Your task to perform on an android device: Open calendar and show me the second week of next month Image 0: 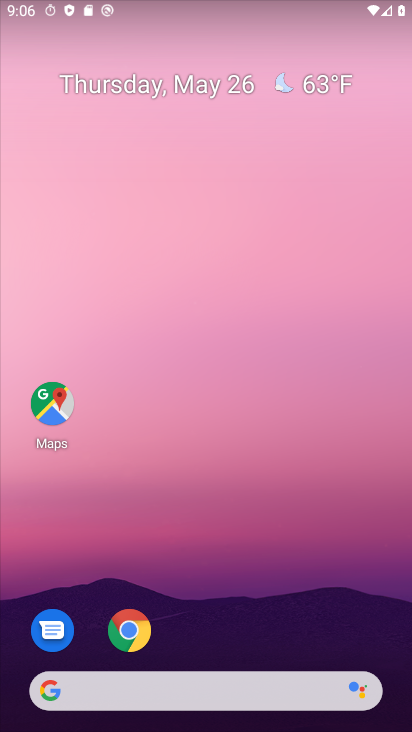
Step 0: drag from (129, 128) to (153, 50)
Your task to perform on an android device: Open calendar and show me the second week of next month Image 1: 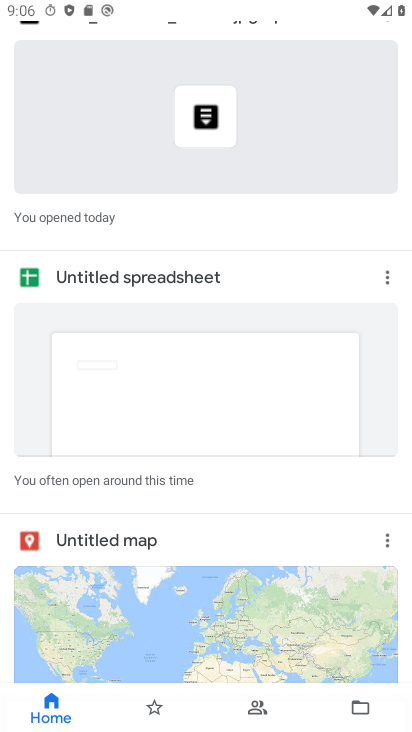
Step 1: drag from (223, 378) to (164, 173)
Your task to perform on an android device: Open calendar and show me the second week of next month Image 2: 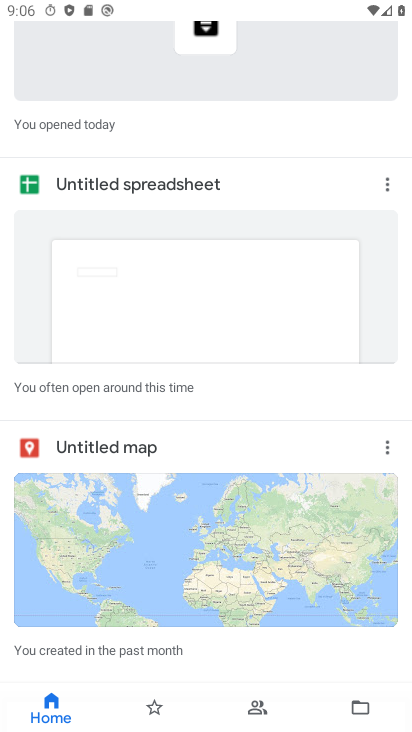
Step 2: press back button
Your task to perform on an android device: Open calendar and show me the second week of next month Image 3: 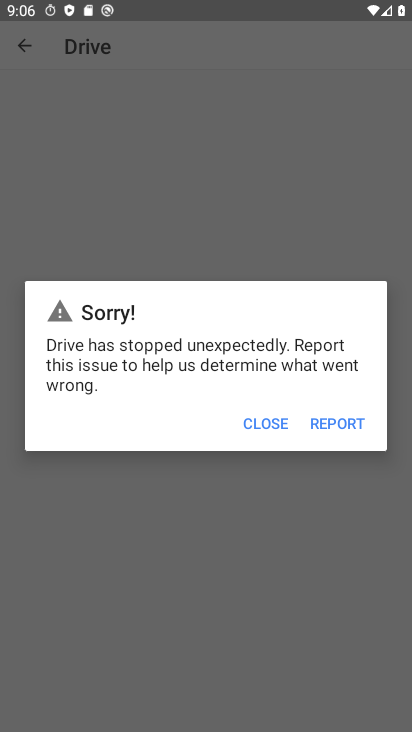
Step 3: click (267, 416)
Your task to perform on an android device: Open calendar and show me the second week of next month Image 4: 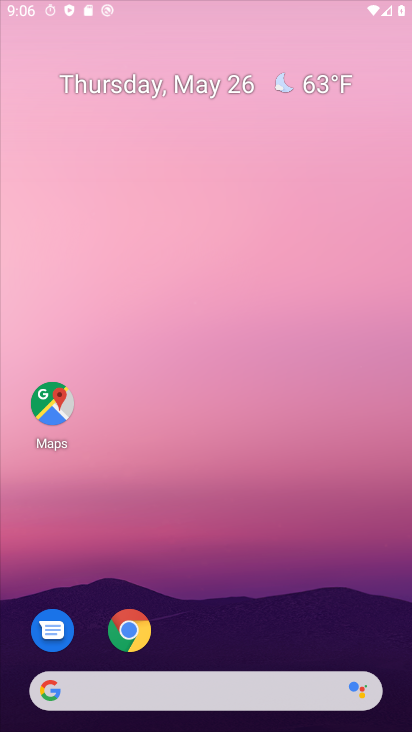
Step 4: click (251, 410)
Your task to perform on an android device: Open calendar and show me the second week of next month Image 5: 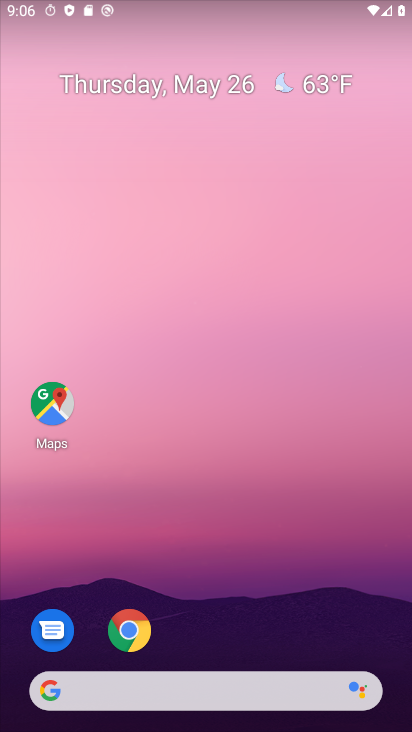
Step 5: drag from (279, 621) to (175, 112)
Your task to perform on an android device: Open calendar and show me the second week of next month Image 6: 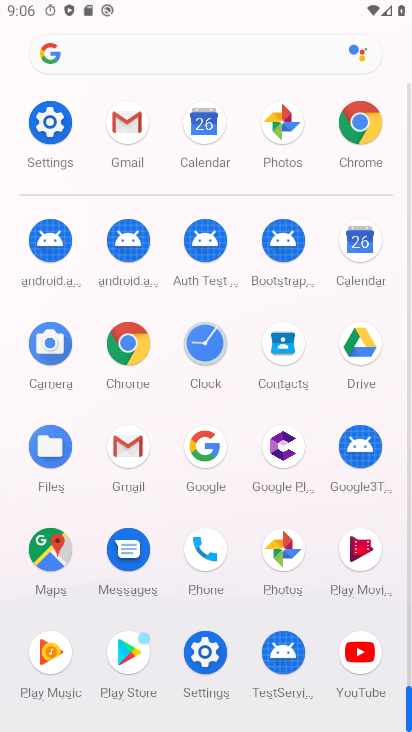
Step 6: click (363, 241)
Your task to perform on an android device: Open calendar and show me the second week of next month Image 7: 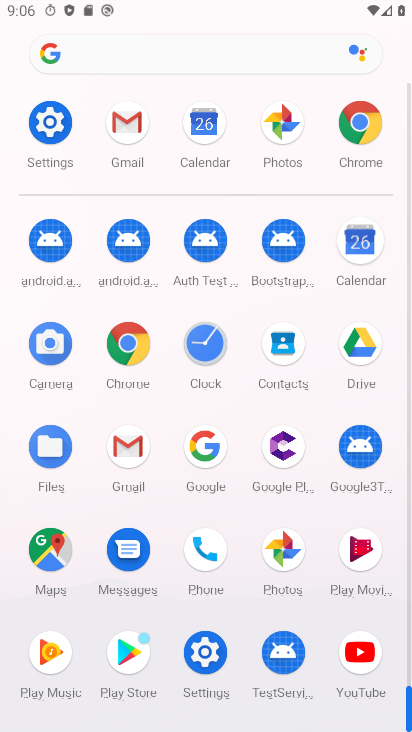
Step 7: click (363, 241)
Your task to perform on an android device: Open calendar and show me the second week of next month Image 8: 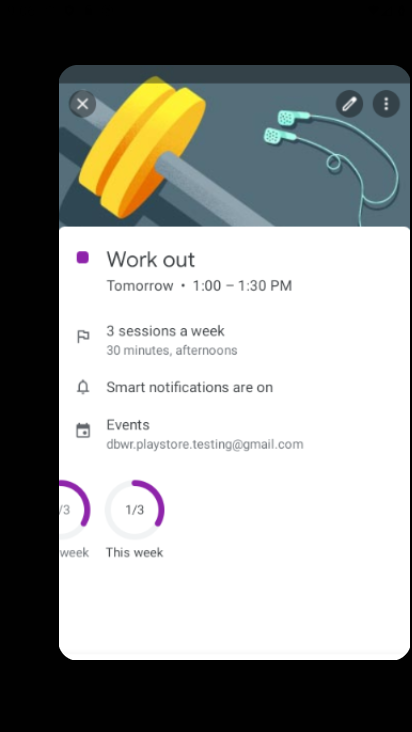
Step 8: click (363, 241)
Your task to perform on an android device: Open calendar and show me the second week of next month Image 9: 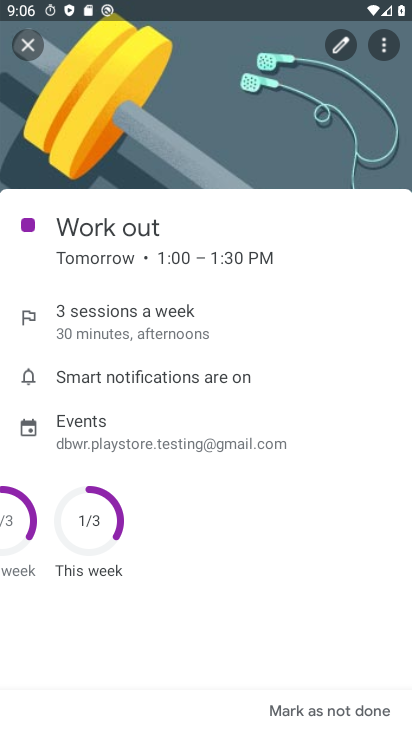
Step 9: click (26, 47)
Your task to perform on an android device: Open calendar and show me the second week of next month Image 10: 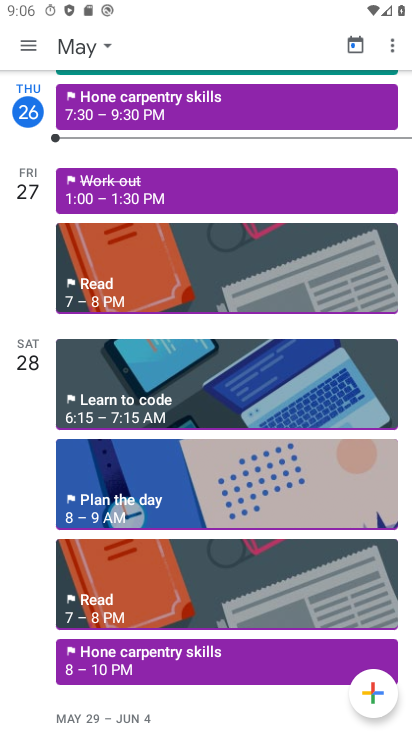
Step 10: click (106, 52)
Your task to perform on an android device: Open calendar and show me the second week of next month Image 11: 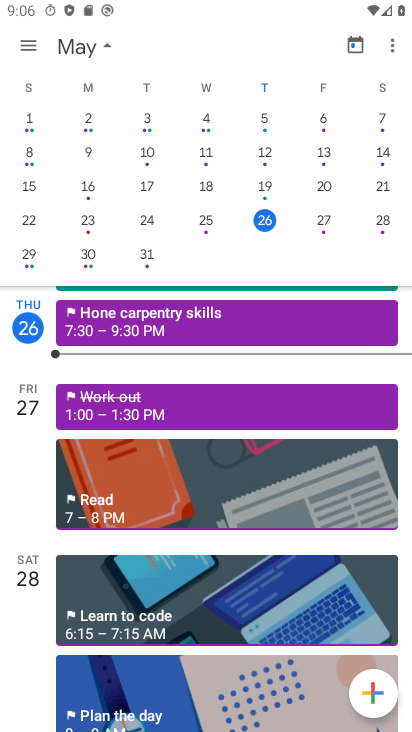
Step 11: drag from (328, 161) to (7, 188)
Your task to perform on an android device: Open calendar and show me the second week of next month Image 12: 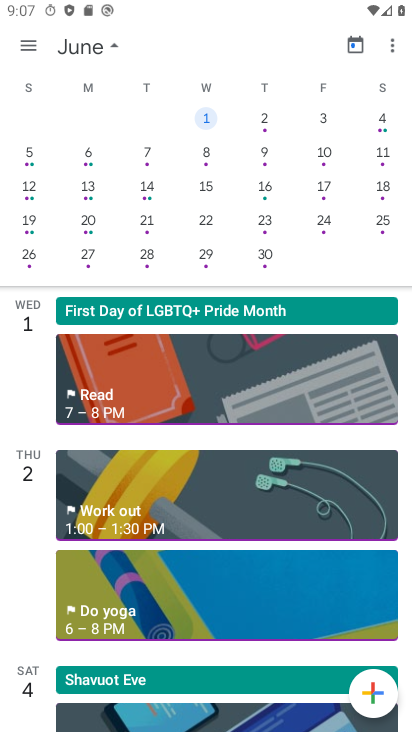
Step 12: click (201, 154)
Your task to perform on an android device: Open calendar and show me the second week of next month Image 13: 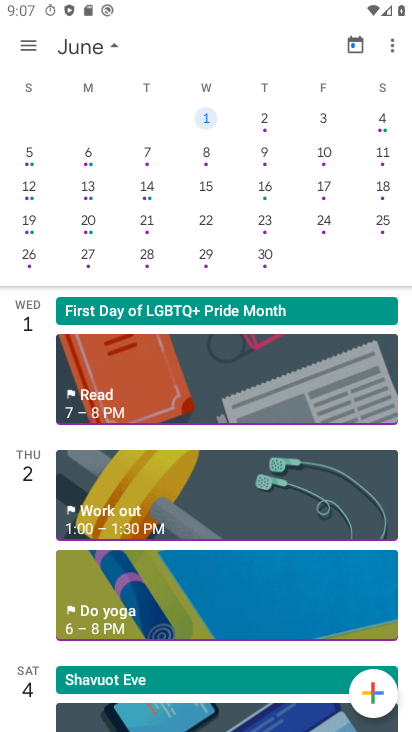
Step 13: click (201, 153)
Your task to perform on an android device: Open calendar and show me the second week of next month Image 14: 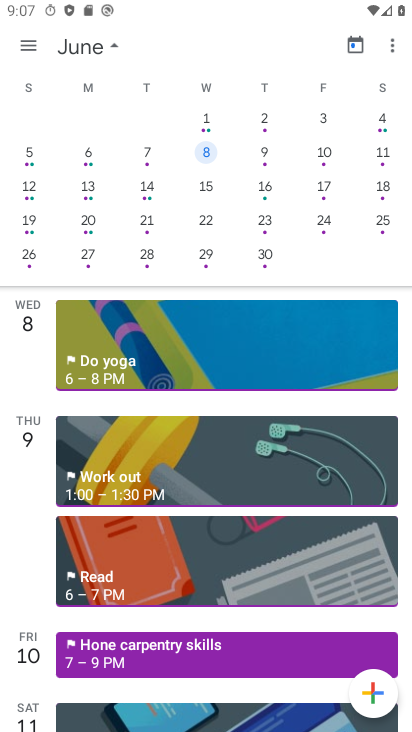
Step 14: click (201, 152)
Your task to perform on an android device: Open calendar and show me the second week of next month Image 15: 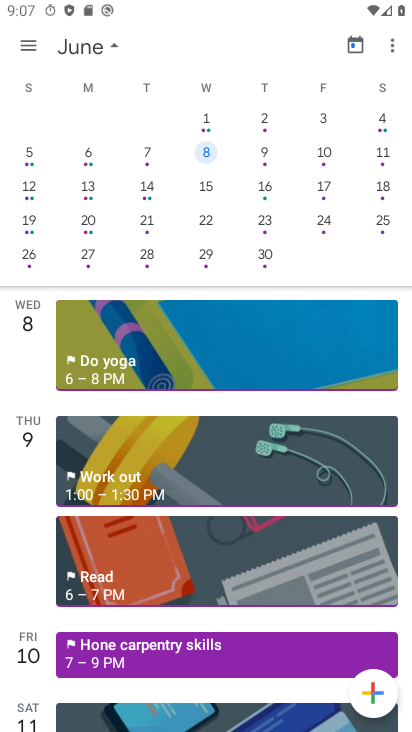
Step 15: task complete